Your task to perform on an android device: toggle improve location accuracy Image 0: 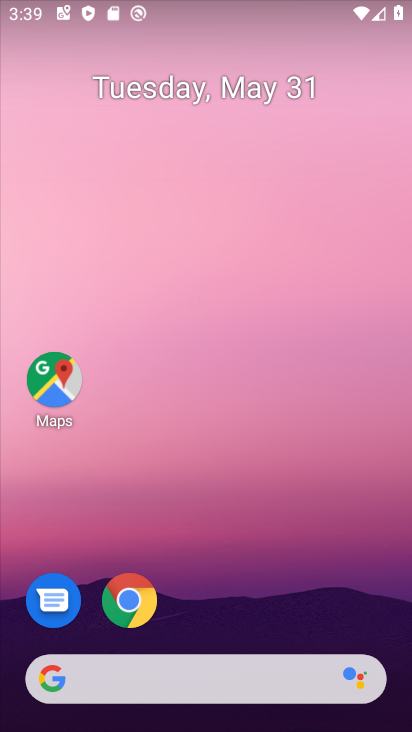
Step 0: drag from (233, 631) to (278, 66)
Your task to perform on an android device: toggle improve location accuracy Image 1: 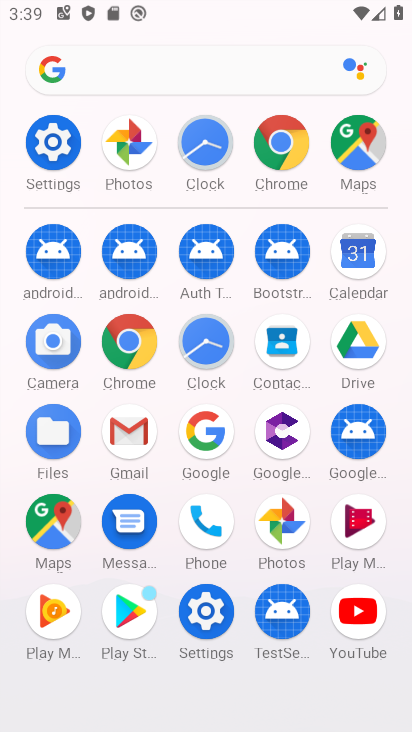
Step 1: click (52, 141)
Your task to perform on an android device: toggle improve location accuracy Image 2: 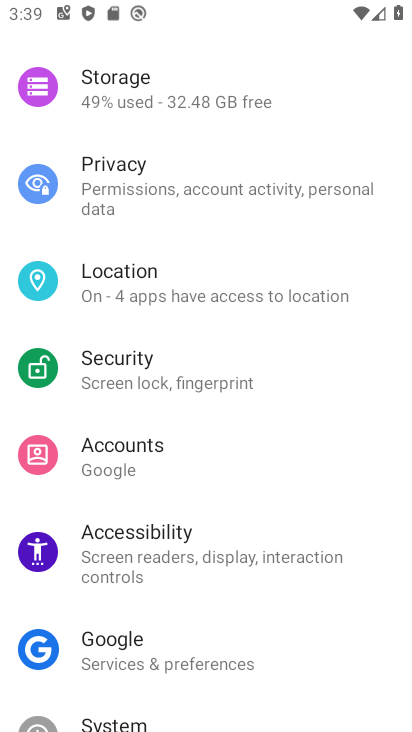
Step 2: click (183, 267)
Your task to perform on an android device: toggle improve location accuracy Image 3: 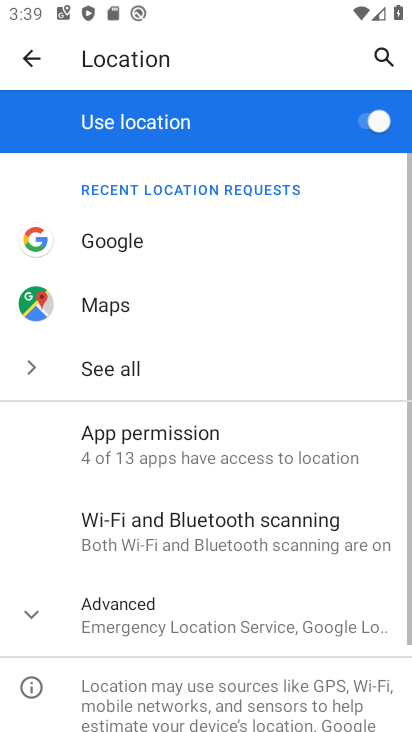
Step 3: click (132, 616)
Your task to perform on an android device: toggle improve location accuracy Image 4: 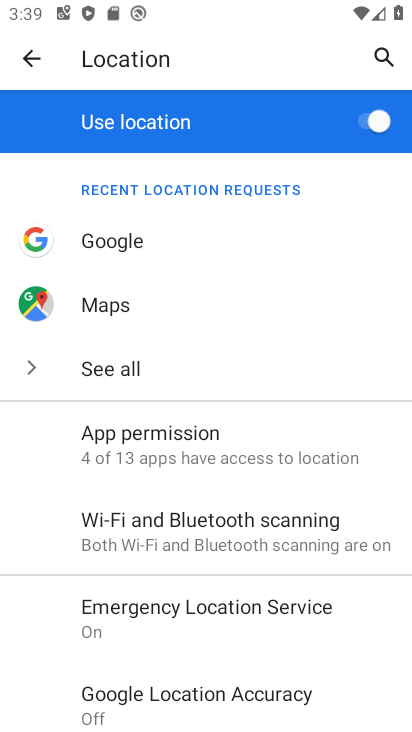
Step 4: click (245, 700)
Your task to perform on an android device: toggle improve location accuracy Image 5: 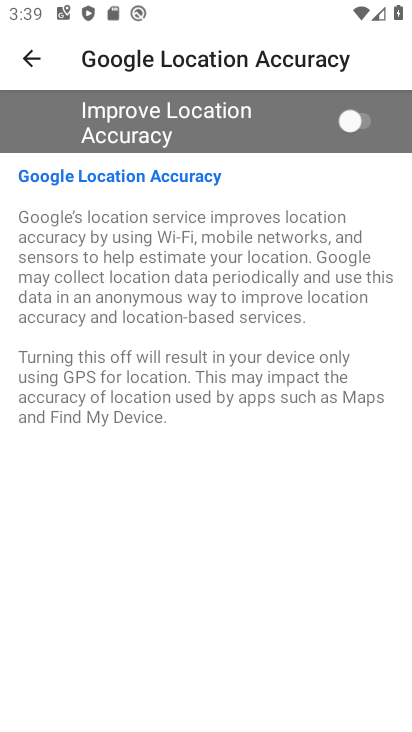
Step 5: click (367, 120)
Your task to perform on an android device: toggle improve location accuracy Image 6: 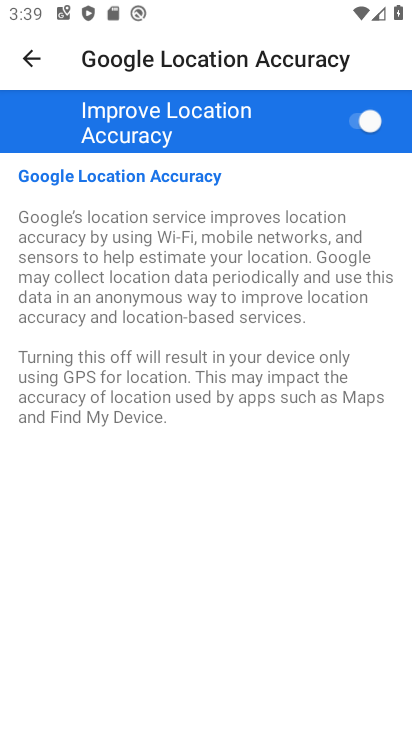
Step 6: task complete